Your task to perform on an android device: change notification settings in the gmail app Image 0: 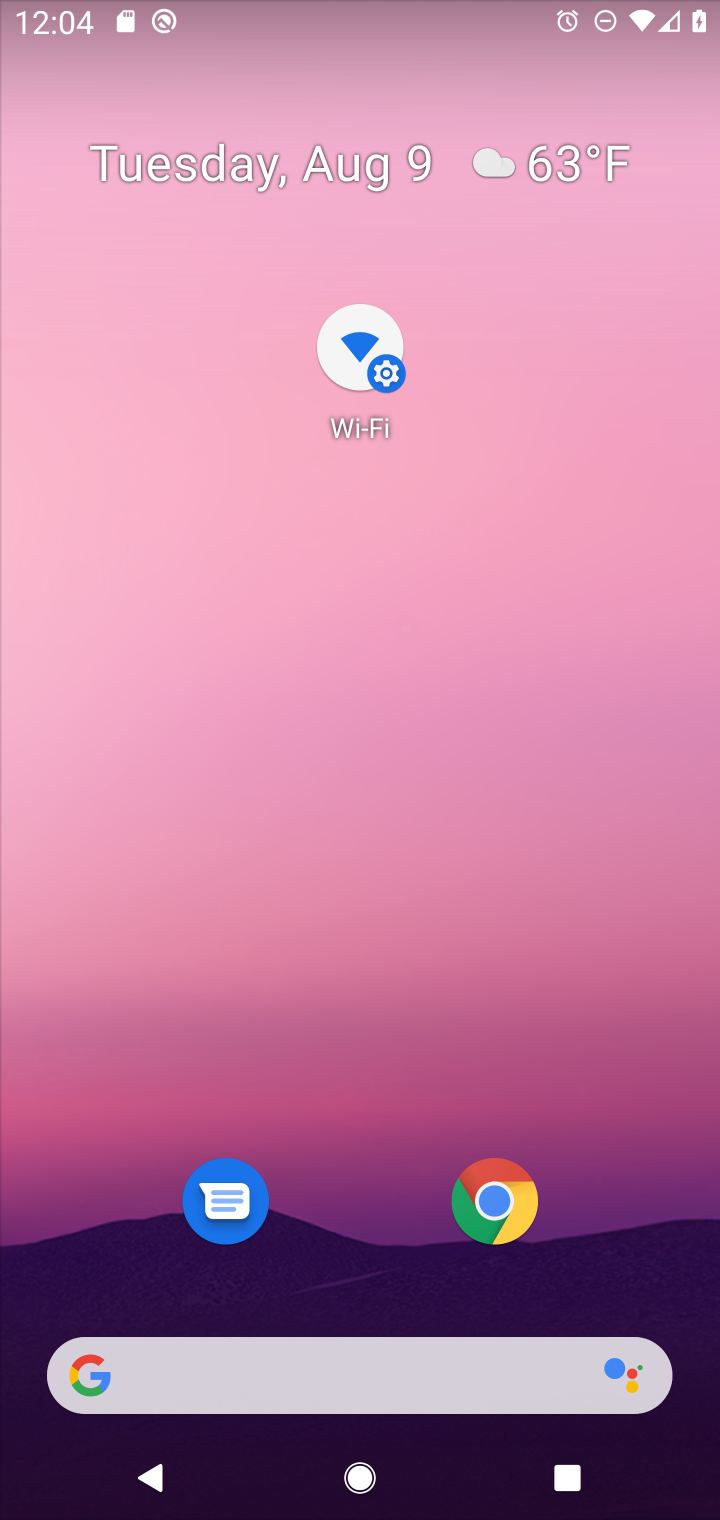
Step 0: press home button
Your task to perform on an android device: change notification settings in the gmail app Image 1: 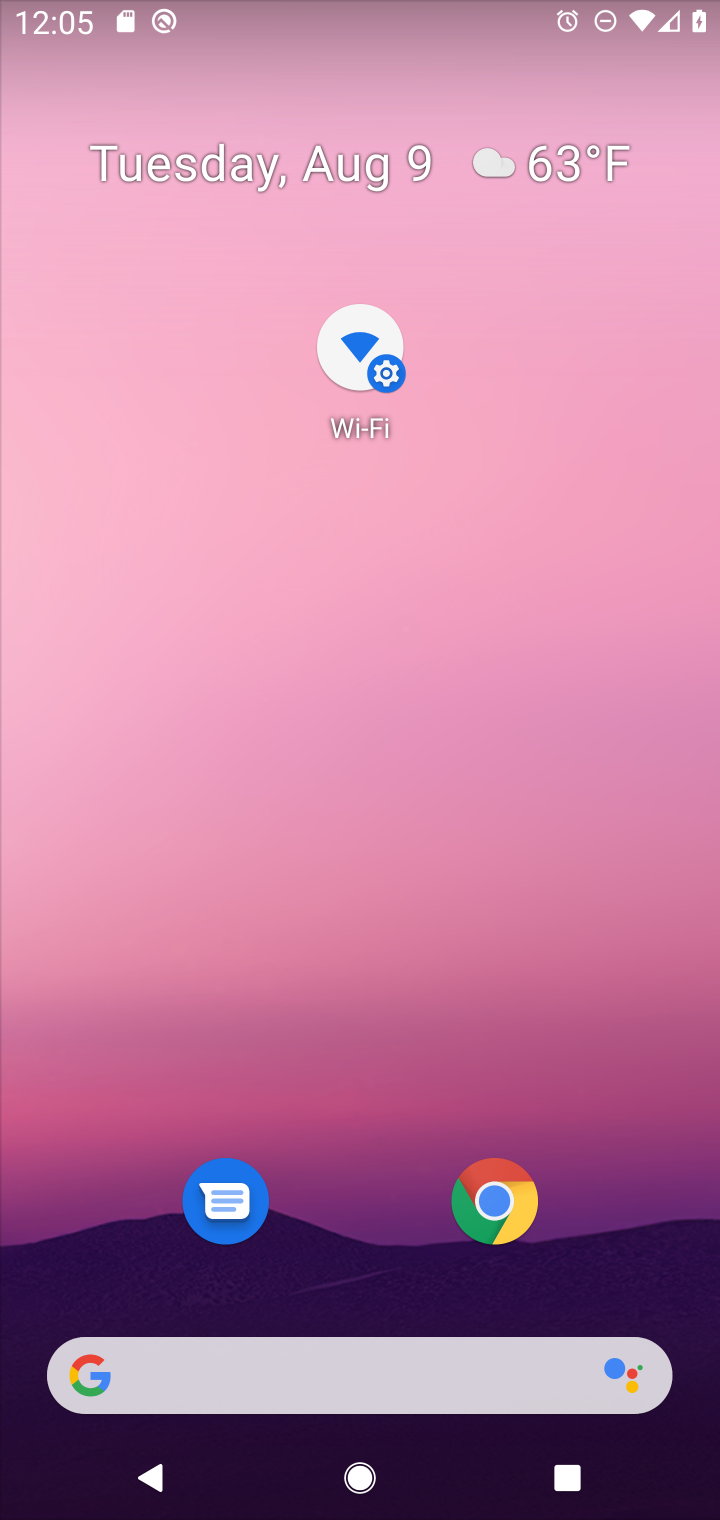
Step 1: drag from (320, 1093) to (417, 73)
Your task to perform on an android device: change notification settings in the gmail app Image 2: 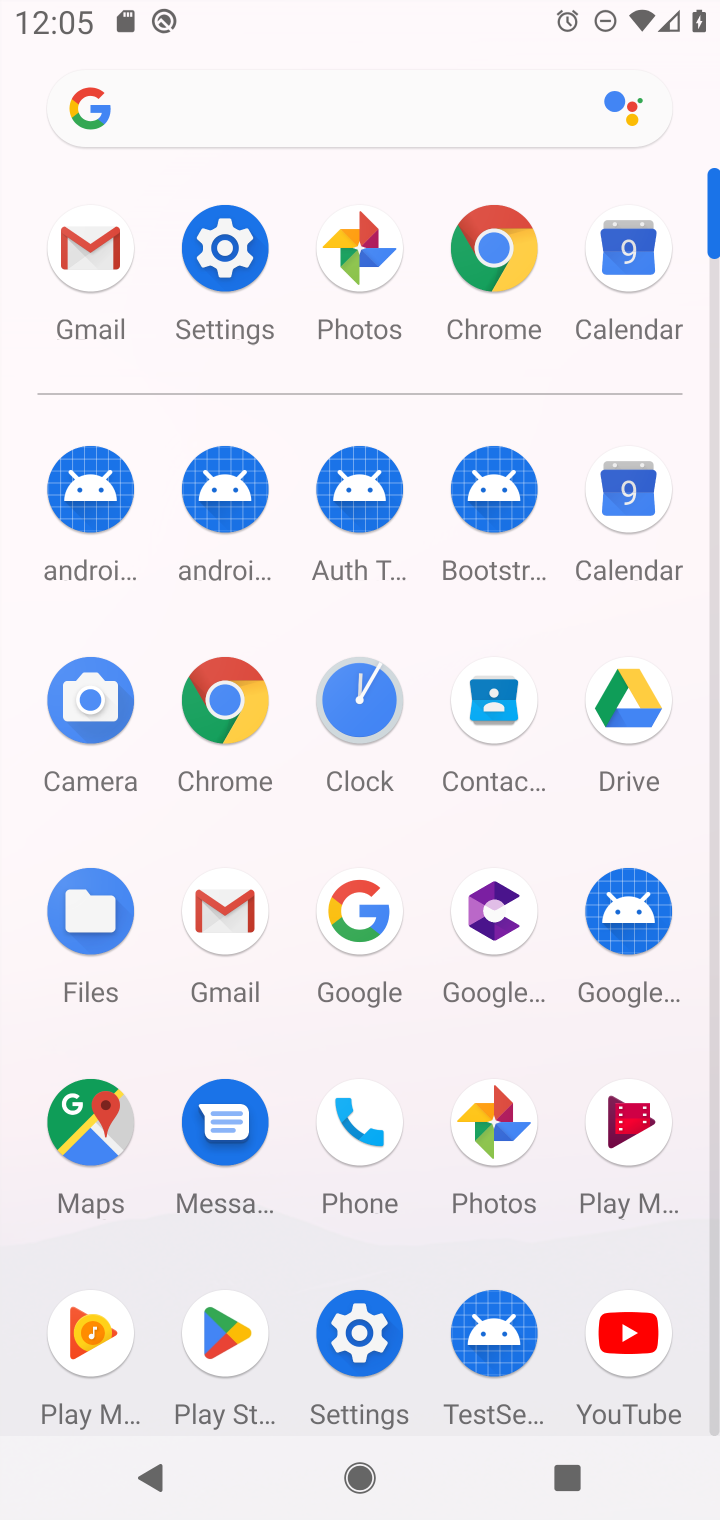
Step 2: click (230, 907)
Your task to perform on an android device: change notification settings in the gmail app Image 3: 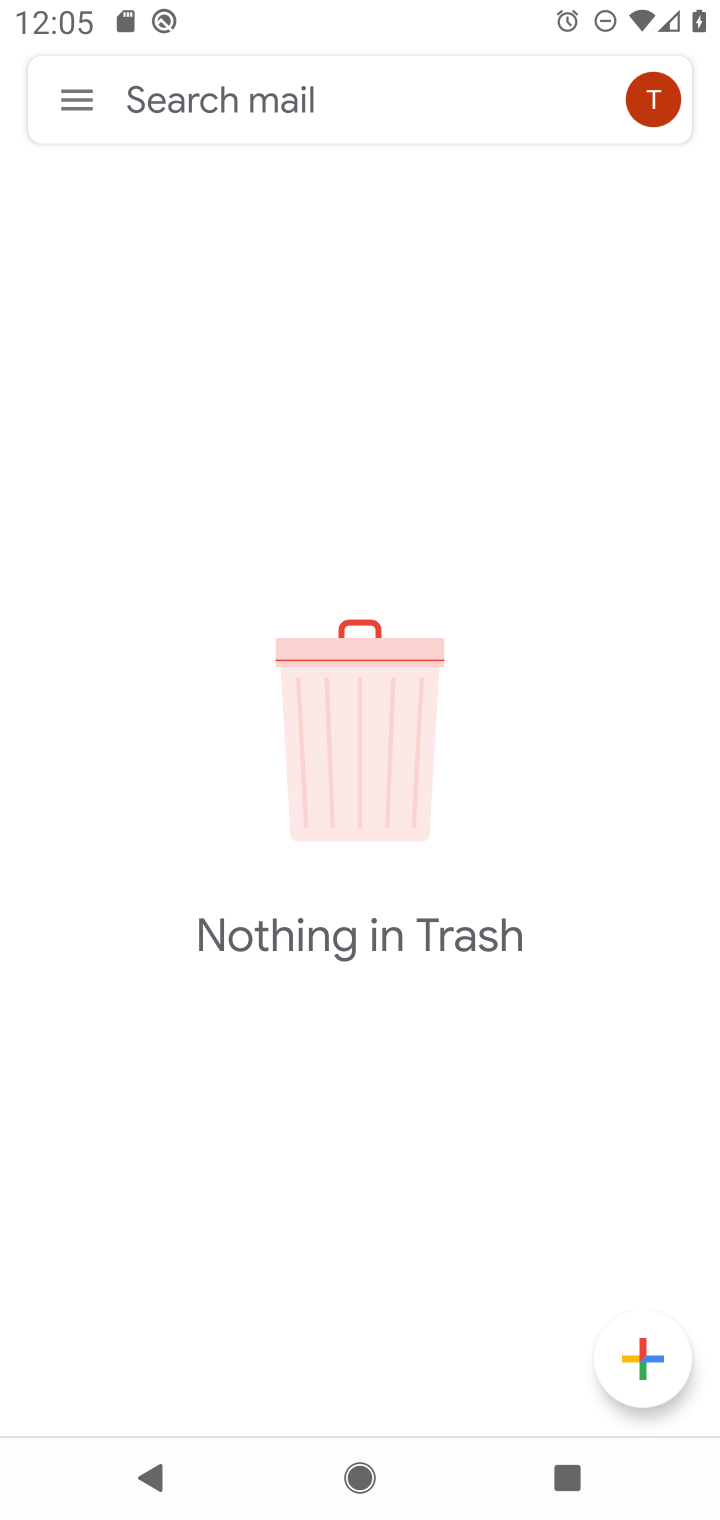
Step 3: click (85, 108)
Your task to perform on an android device: change notification settings in the gmail app Image 4: 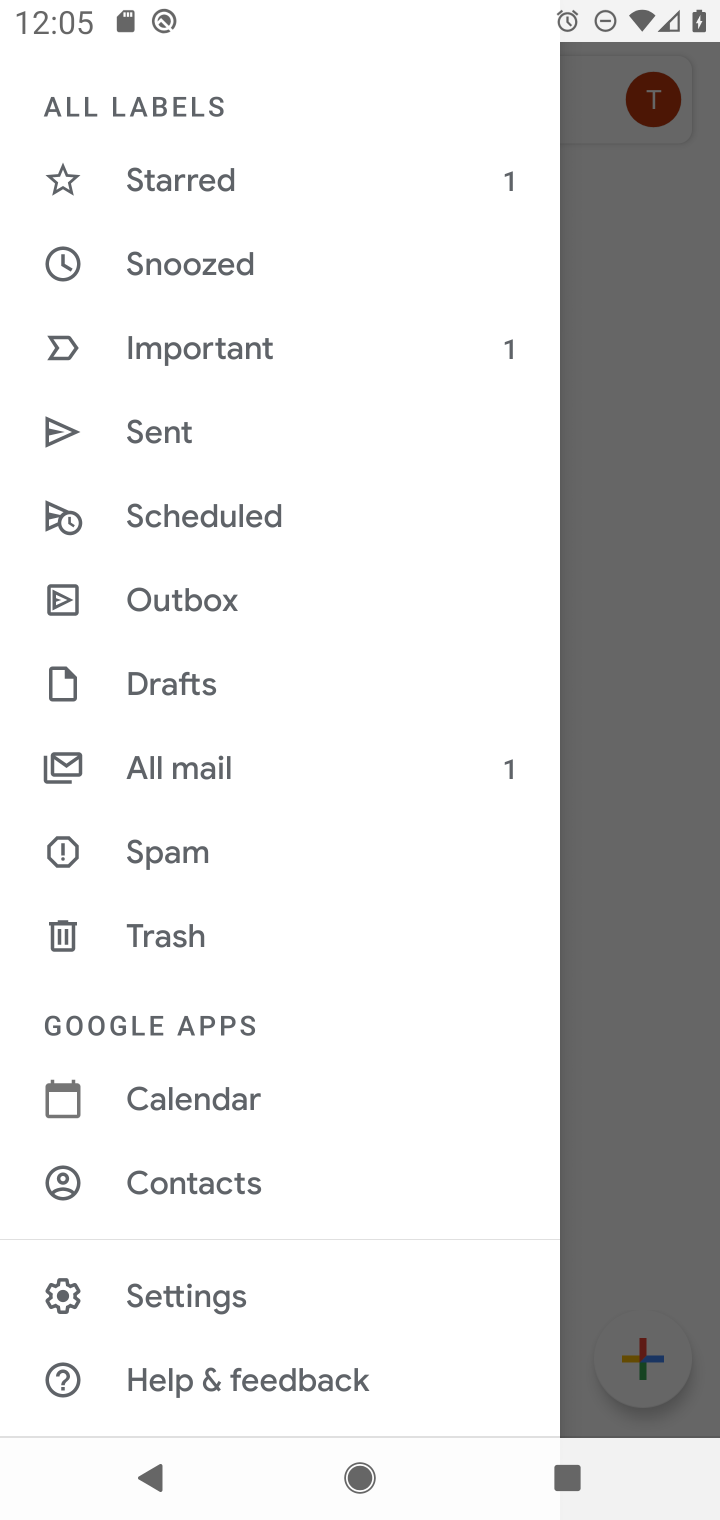
Step 4: click (221, 1265)
Your task to perform on an android device: change notification settings in the gmail app Image 5: 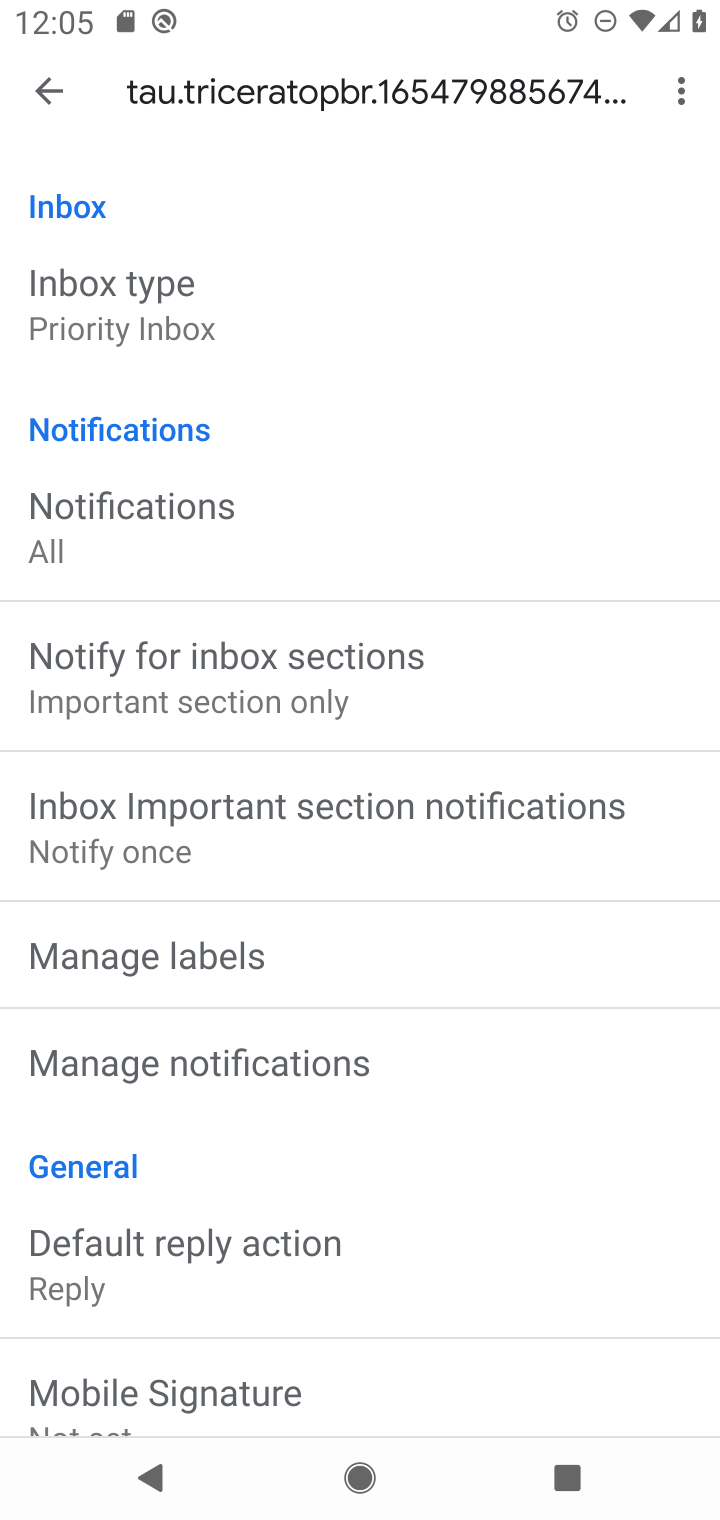
Step 5: drag from (476, 1227) to (488, 339)
Your task to perform on an android device: change notification settings in the gmail app Image 6: 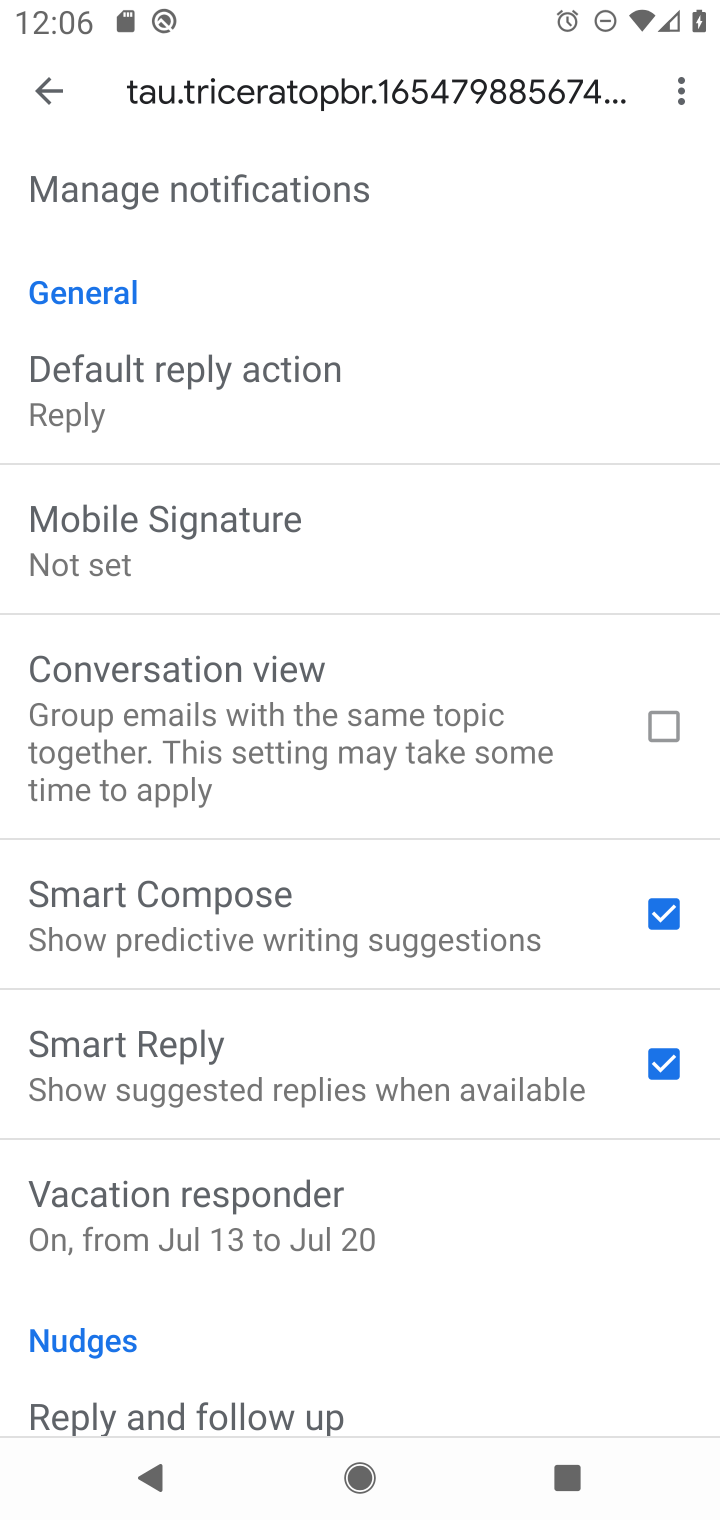
Step 6: drag from (490, 1197) to (505, 565)
Your task to perform on an android device: change notification settings in the gmail app Image 7: 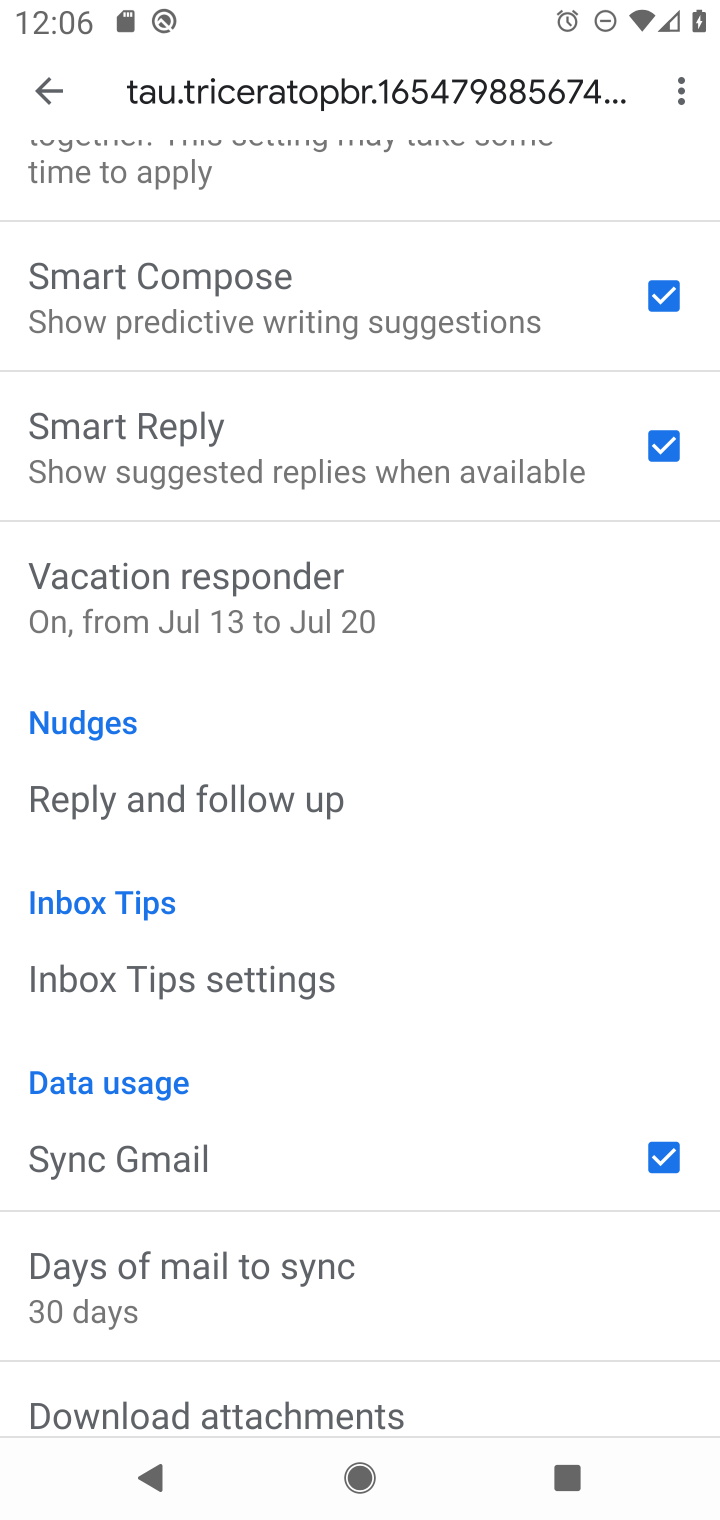
Step 7: drag from (459, 1155) to (474, 542)
Your task to perform on an android device: change notification settings in the gmail app Image 8: 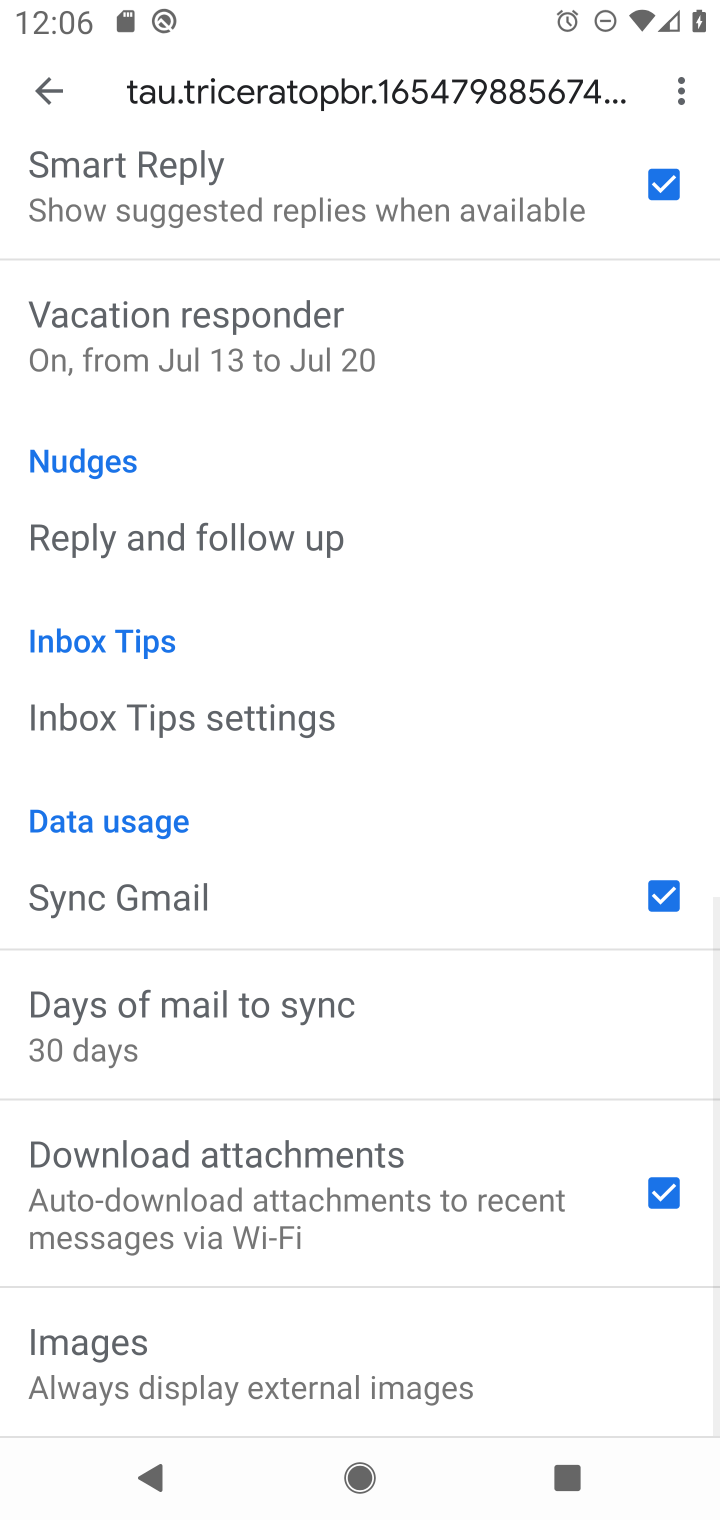
Step 8: drag from (475, 1238) to (487, 634)
Your task to perform on an android device: change notification settings in the gmail app Image 9: 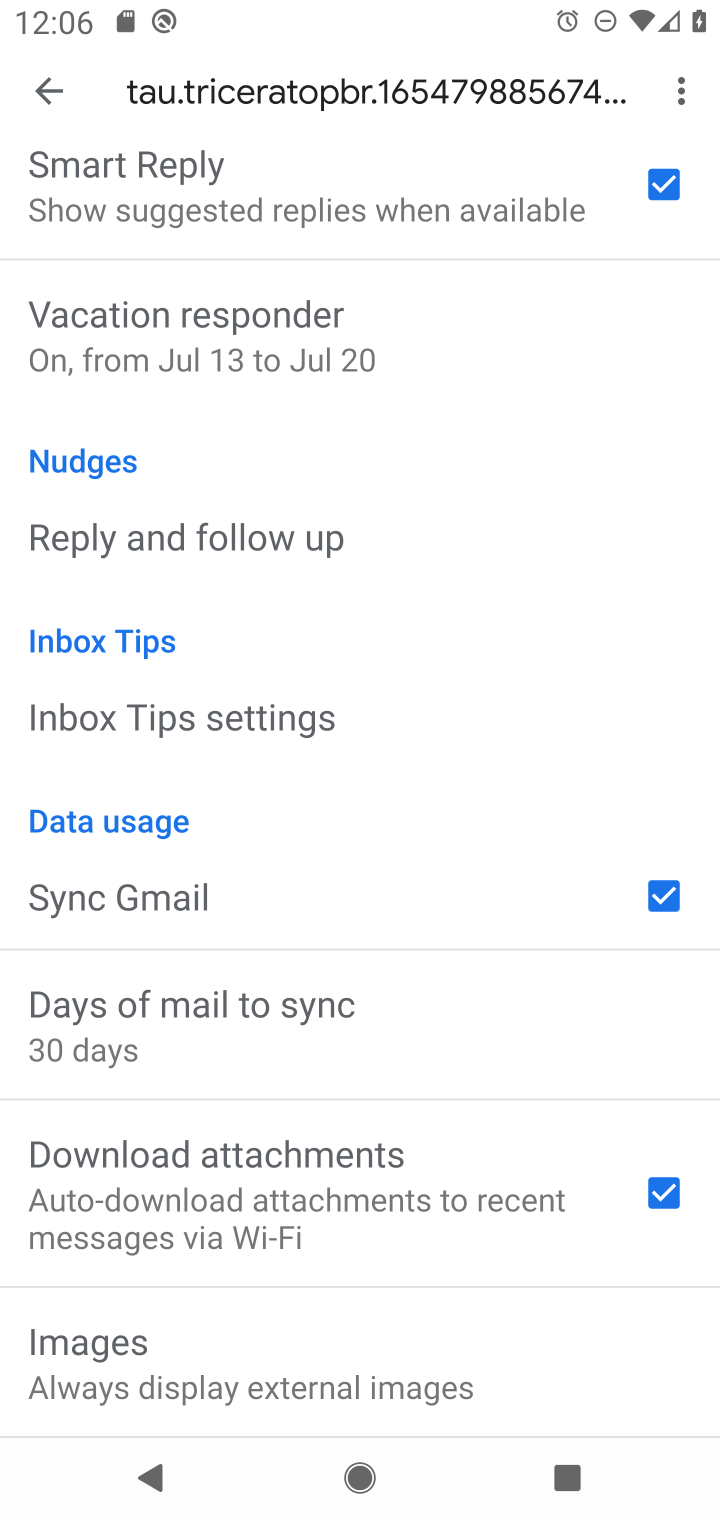
Step 9: drag from (478, 549) to (491, 1012)
Your task to perform on an android device: change notification settings in the gmail app Image 10: 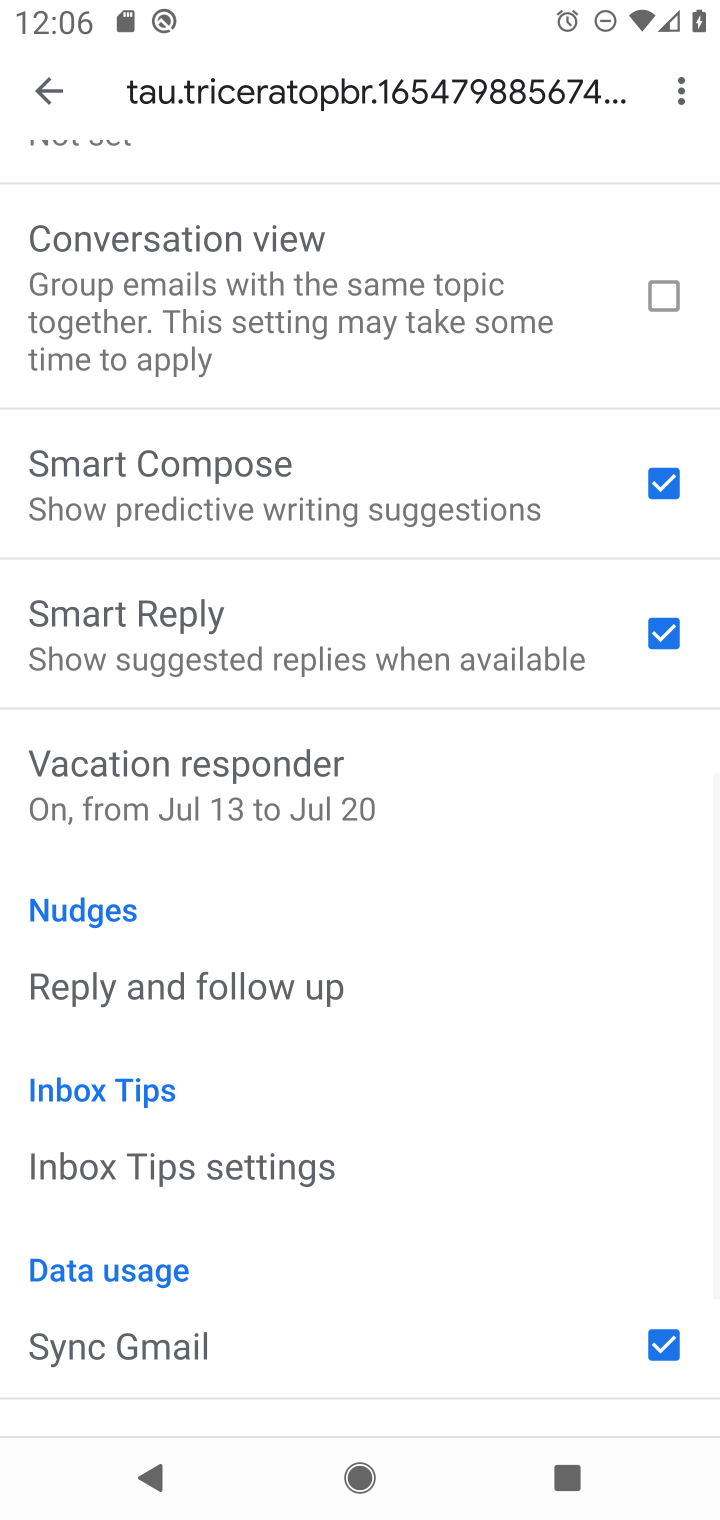
Step 10: drag from (531, 437) to (487, 995)
Your task to perform on an android device: change notification settings in the gmail app Image 11: 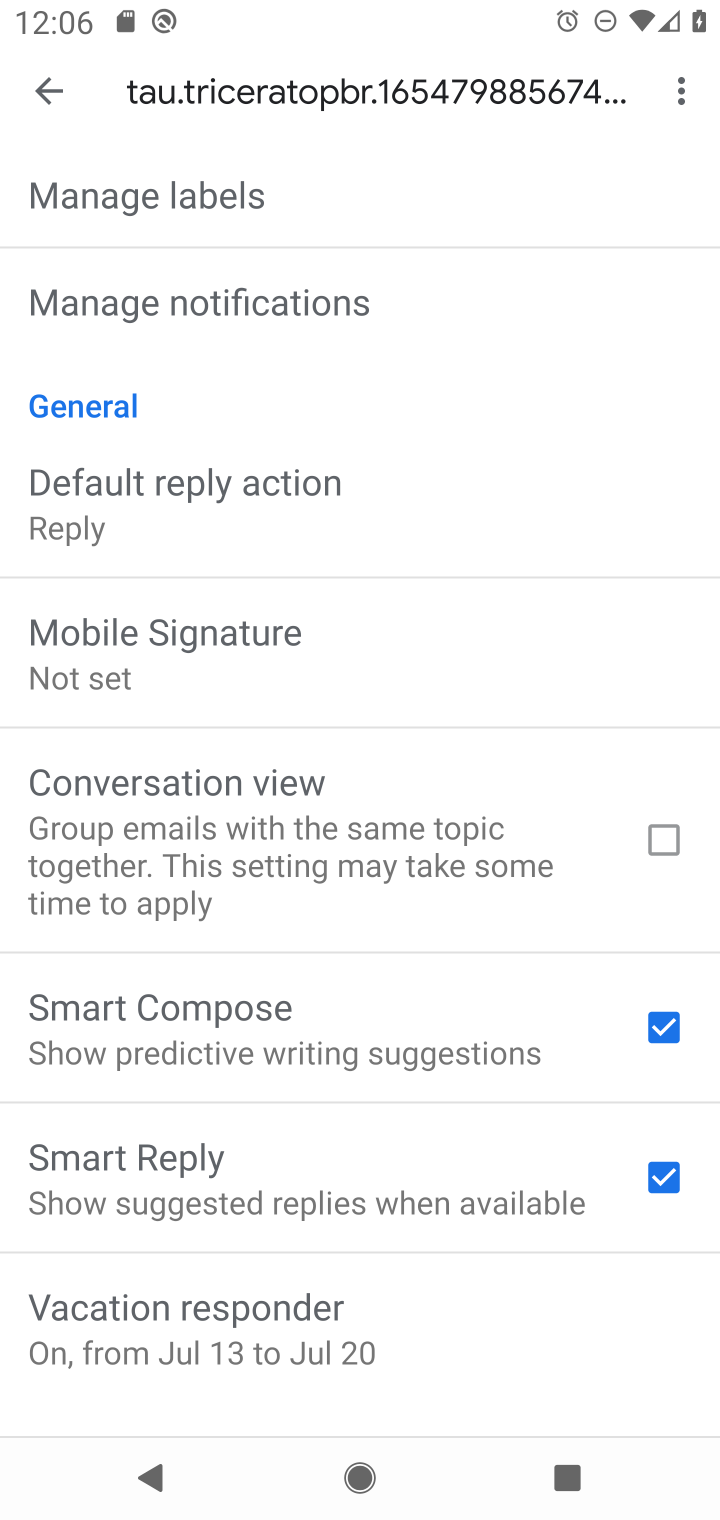
Step 11: drag from (512, 307) to (489, 893)
Your task to perform on an android device: change notification settings in the gmail app Image 12: 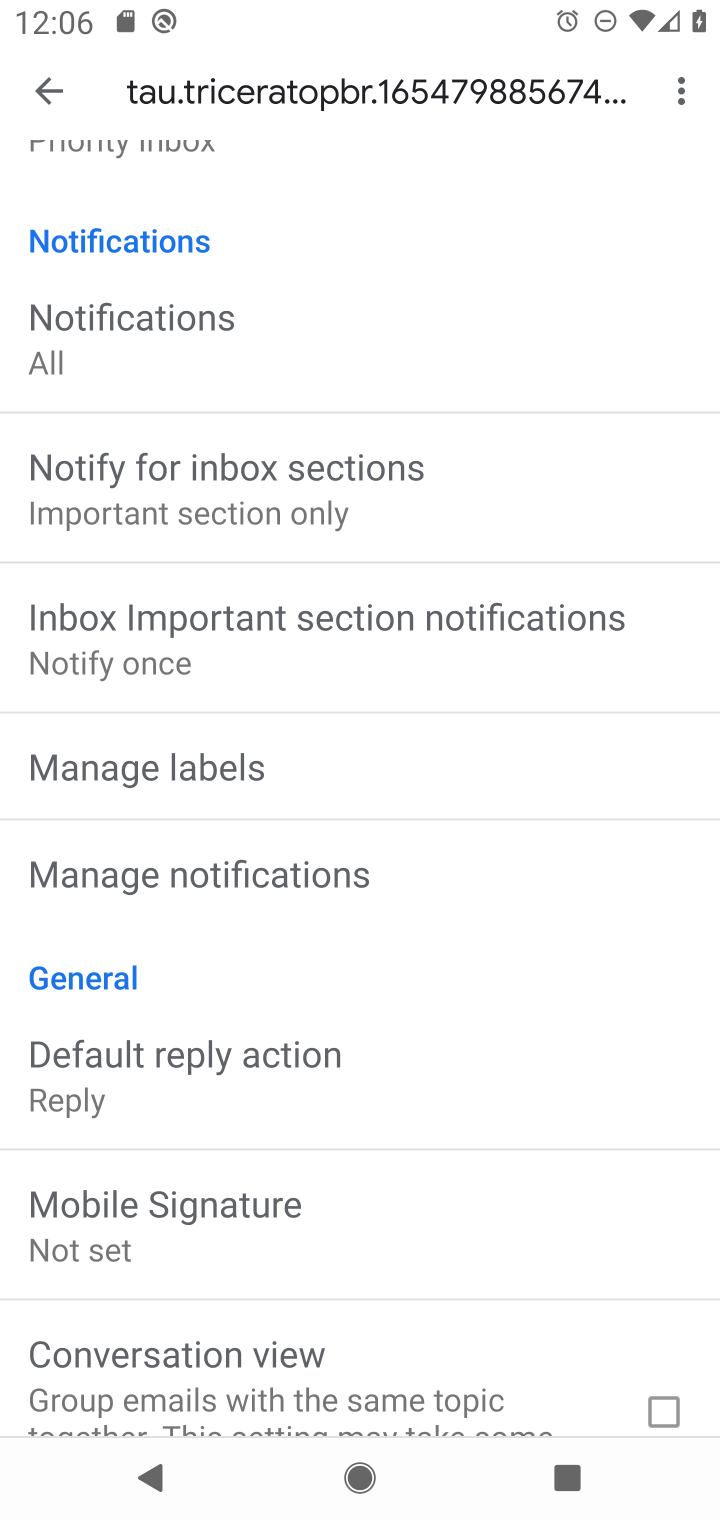
Step 12: drag from (485, 488) to (511, 910)
Your task to perform on an android device: change notification settings in the gmail app Image 13: 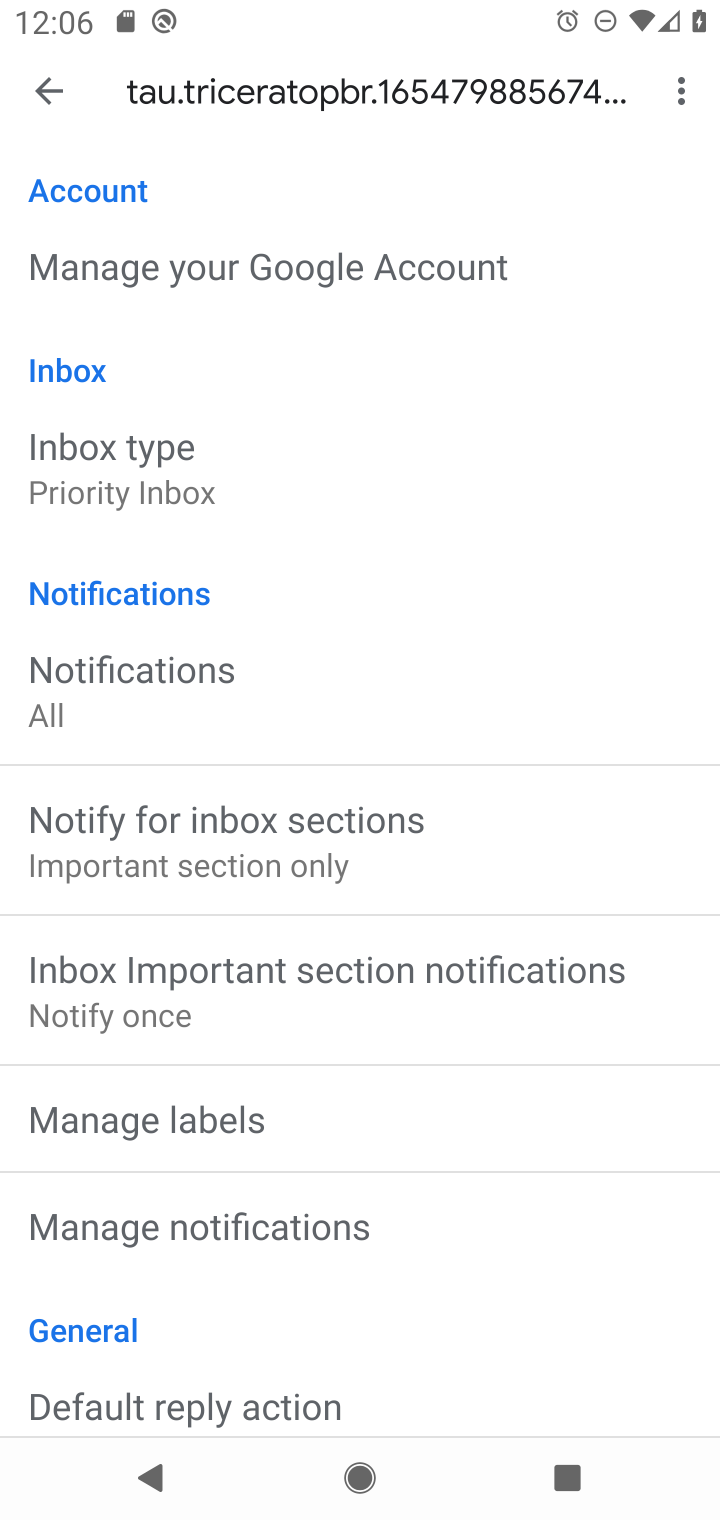
Step 13: click (165, 690)
Your task to perform on an android device: change notification settings in the gmail app Image 14: 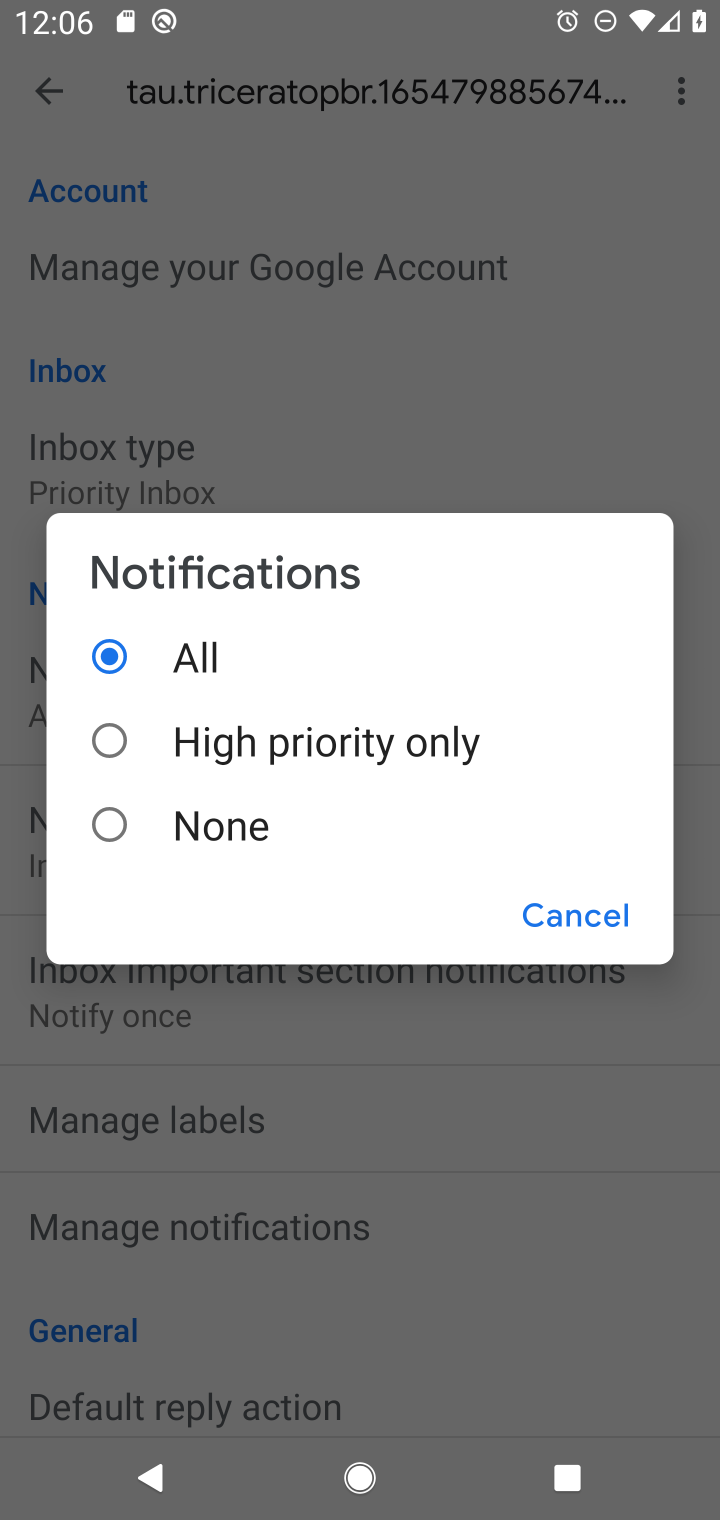
Step 14: click (323, 738)
Your task to perform on an android device: change notification settings in the gmail app Image 15: 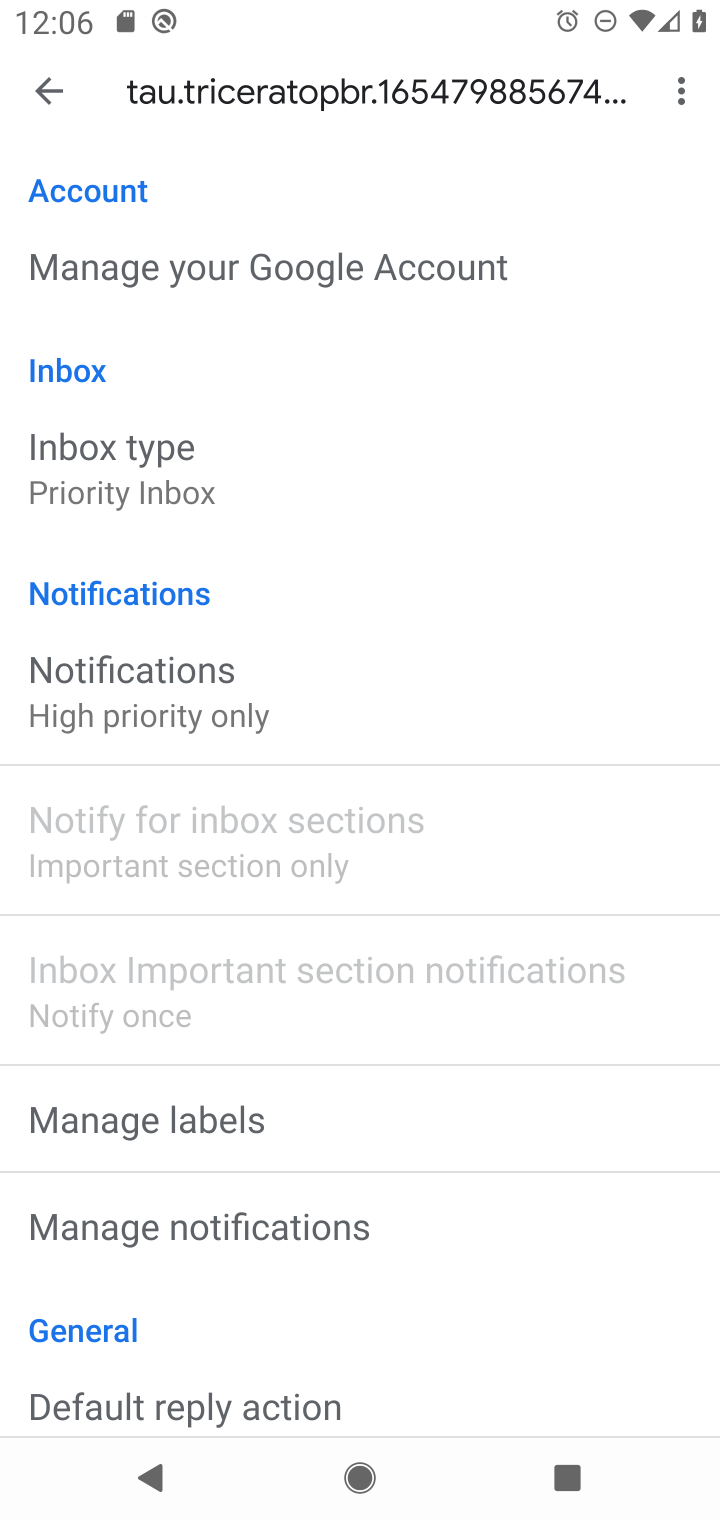
Step 15: task complete